Your task to perform on an android device: Go to sound settings Image 0: 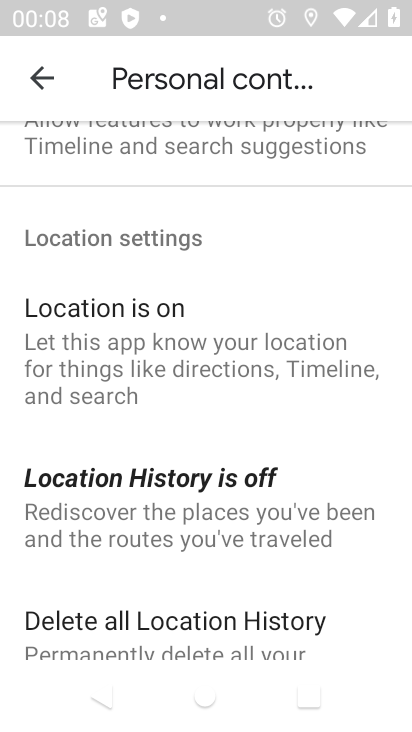
Step 0: press home button
Your task to perform on an android device: Go to sound settings Image 1: 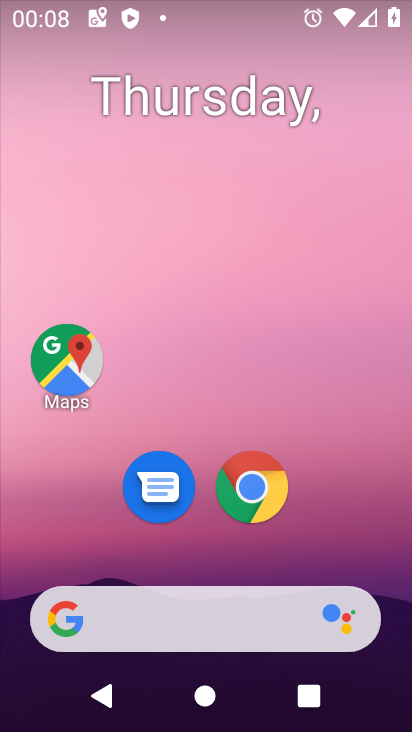
Step 1: drag from (341, 579) to (370, 9)
Your task to perform on an android device: Go to sound settings Image 2: 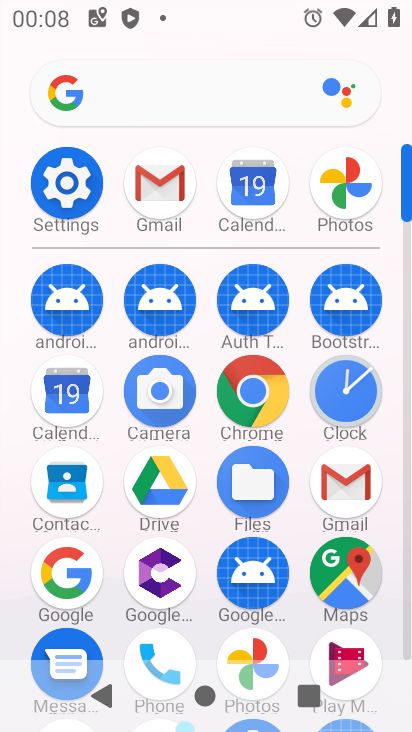
Step 2: click (70, 180)
Your task to perform on an android device: Go to sound settings Image 3: 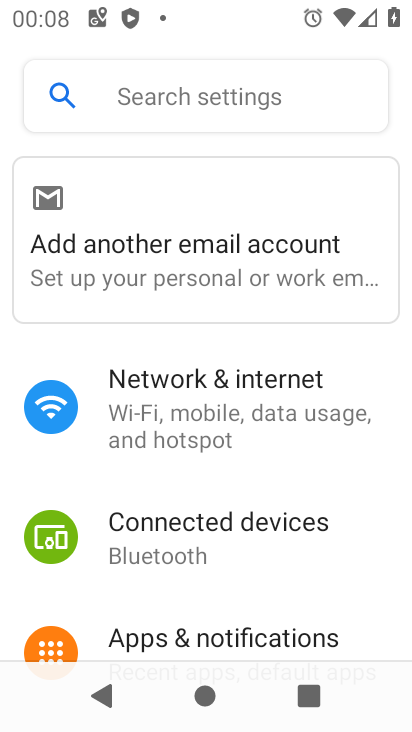
Step 3: drag from (260, 524) to (265, 202)
Your task to perform on an android device: Go to sound settings Image 4: 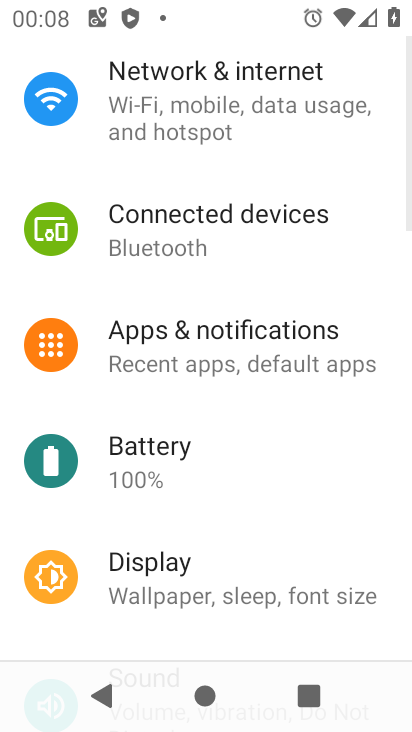
Step 4: drag from (210, 521) to (226, 194)
Your task to perform on an android device: Go to sound settings Image 5: 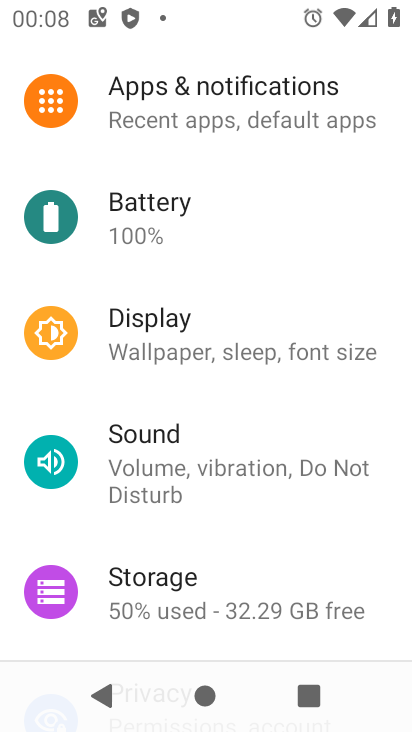
Step 5: click (142, 451)
Your task to perform on an android device: Go to sound settings Image 6: 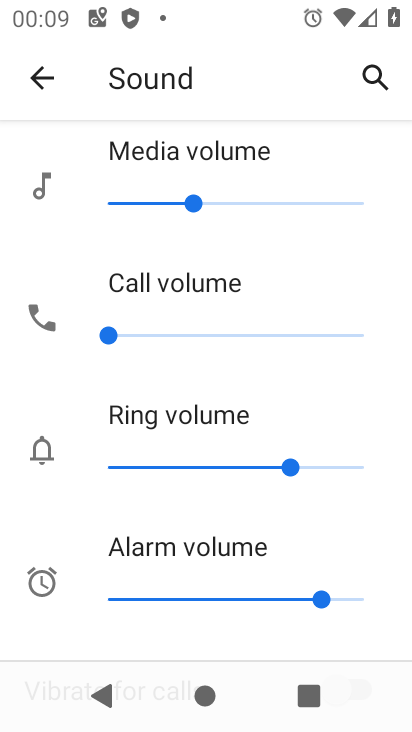
Step 6: task complete